Your task to perform on an android device: turn notification dots off Image 0: 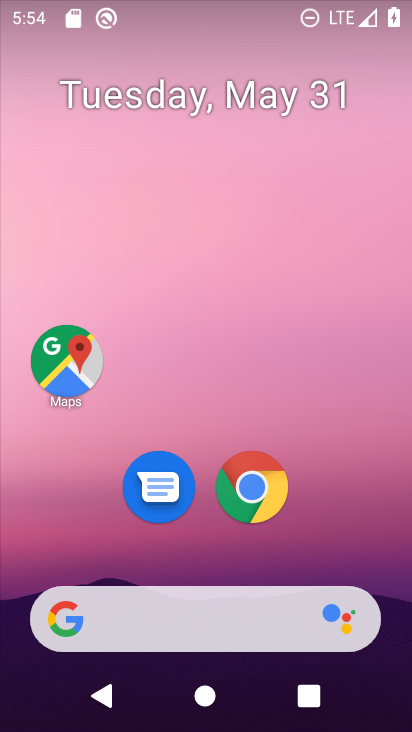
Step 0: drag from (353, 536) to (261, 117)
Your task to perform on an android device: turn notification dots off Image 1: 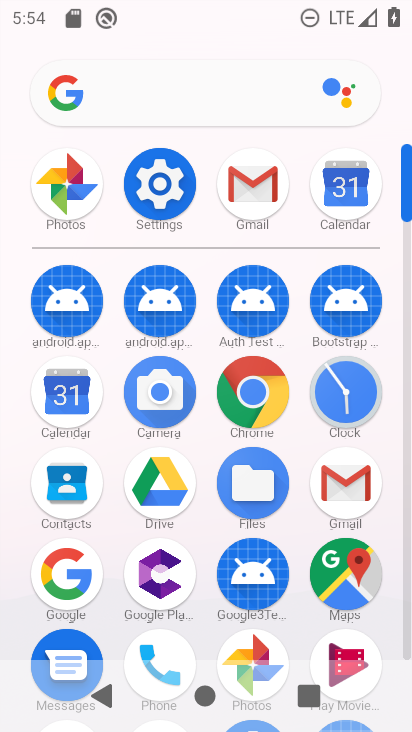
Step 1: click (155, 178)
Your task to perform on an android device: turn notification dots off Image 2: 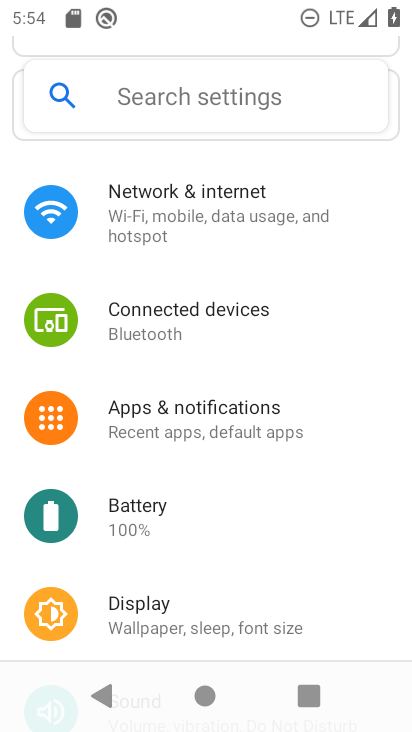
Step 2: click (199, 408)
Your task to perform on an android device: turn notification dots off Image 3: 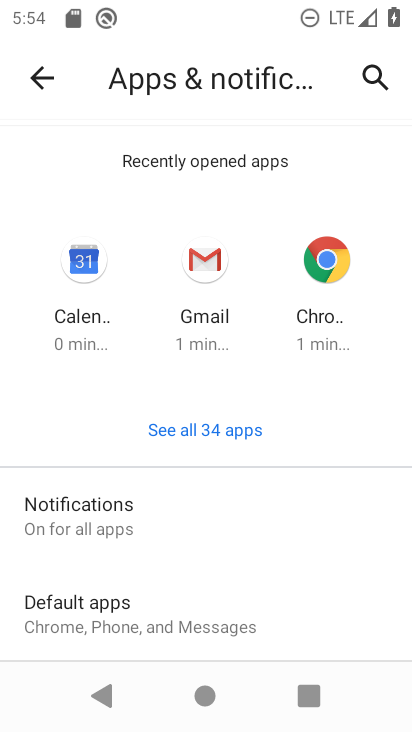
Step 3: click (99, 496)
Your task to perform on an android device: turn notification dots off Image 4: 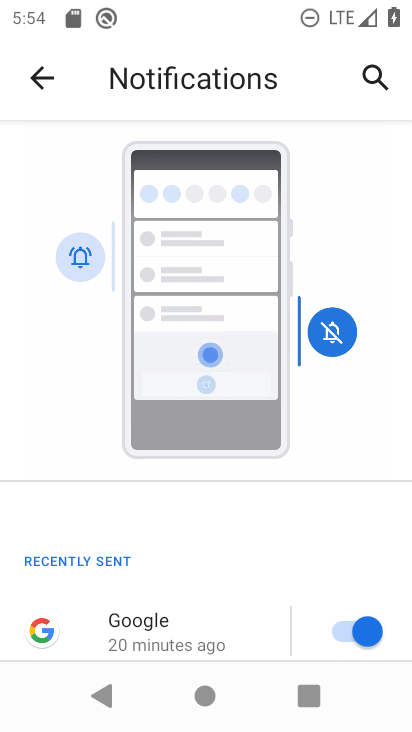
Step 4: drag from (245, 587) to (224, 265)
Your task to perform on an android device: turn notification dots off Image 5: 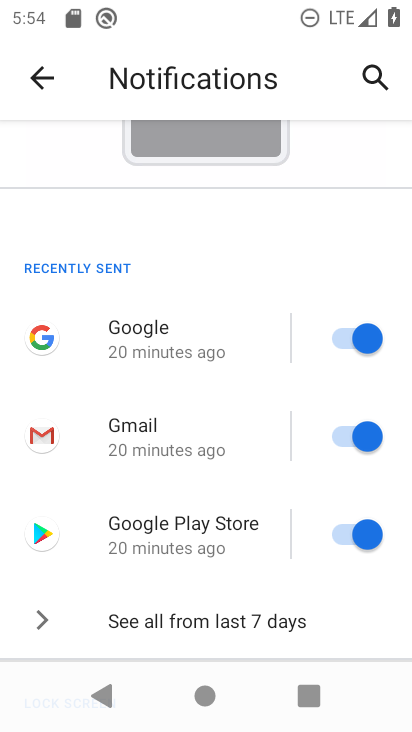
Step 5: drag from (251, 496) to (223, 187)
Your task to perform on an android device: turn notification dots off Image 6: 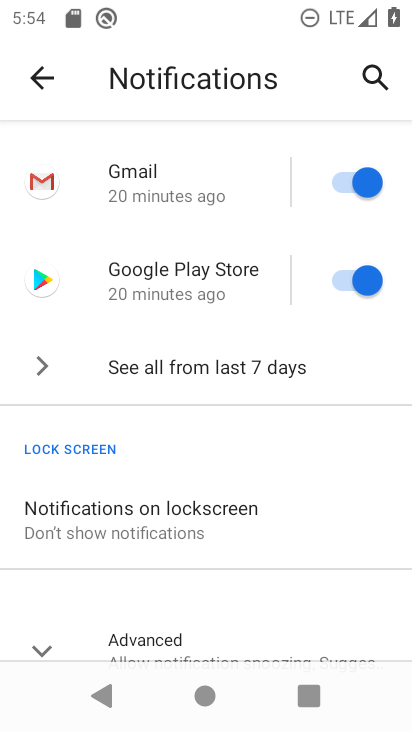
Step 6: drag from (205, 563) to (183, 366)
Your task to perform on an android device: turn notification dots off Image 7: 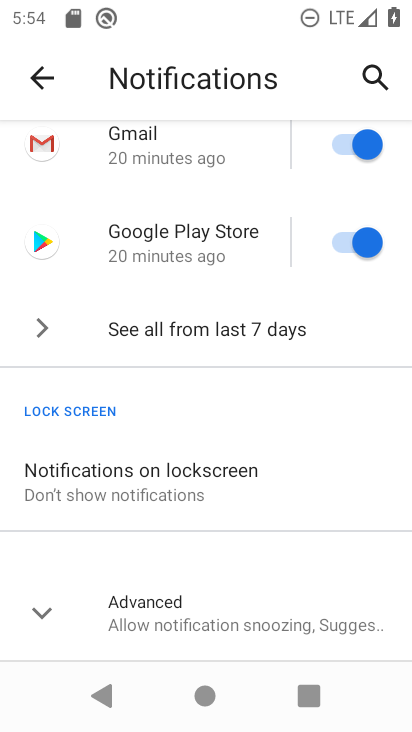
Step 7: click (78, 602)
Your task to perform on an android device: turn notification dots off Image 8: 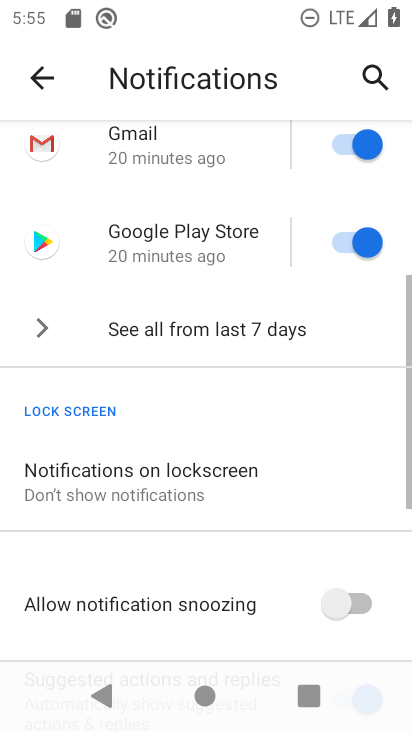
Step 8: drag from (229, 574) to (186, 238)
Your task to perform on an android device: turn notification dots off Image 9: 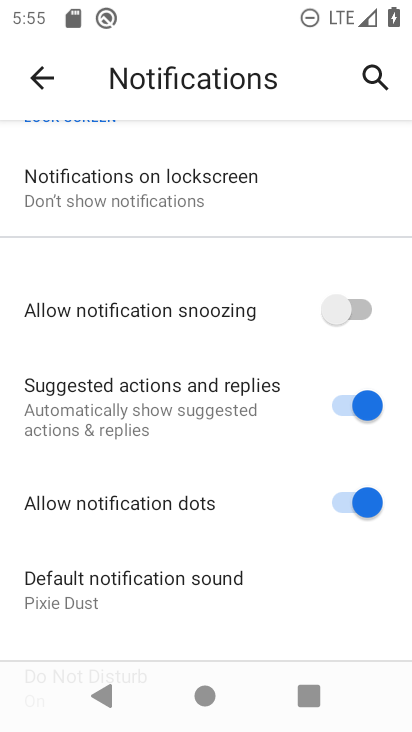
Step 9: click (348, 510)
Your task to perform on an android device: turn notification dots off Image 10: 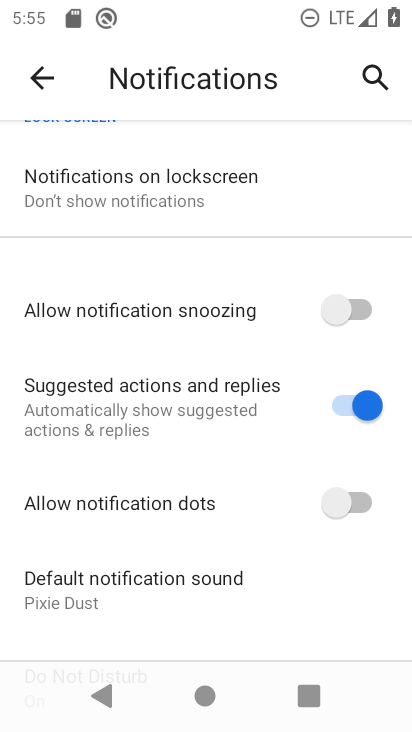
Step 10: task complete